Your task to perform on an android device: Is it going to rain tomorrow? Image 0: 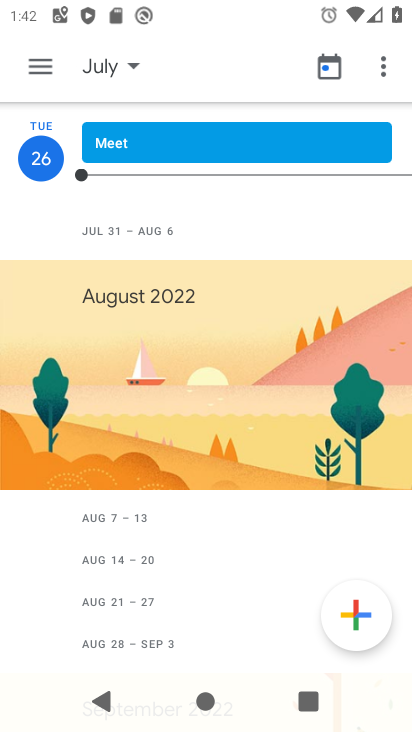
Step 0: press home button
Your task to perform on an android device: Is it going to rain tomorrow? Image 1: 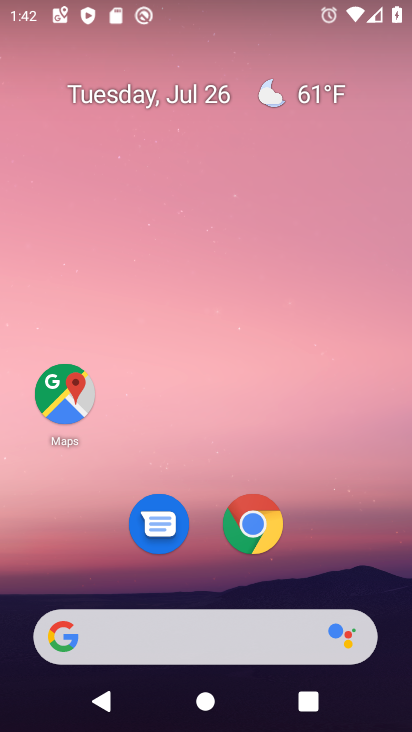
Step 1: click (145, 637)
Your task to perform on an android device: Is it going to rain tomorrow? Image 2: 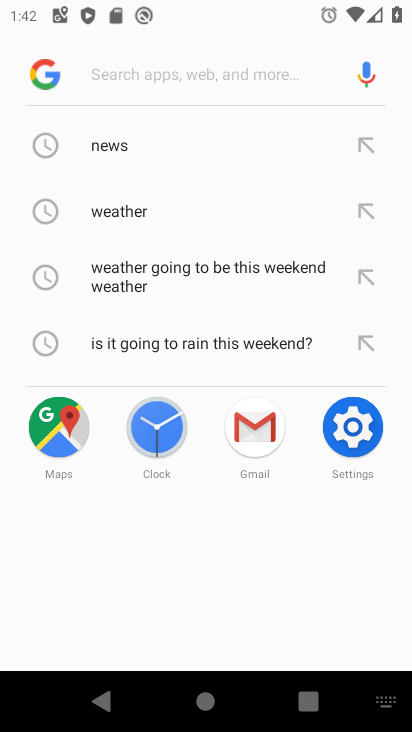
Step 2: type "Is it going to rain tomorrow"
Your task to perform on an android device: Is it going to rain tomorrow? Image 3: 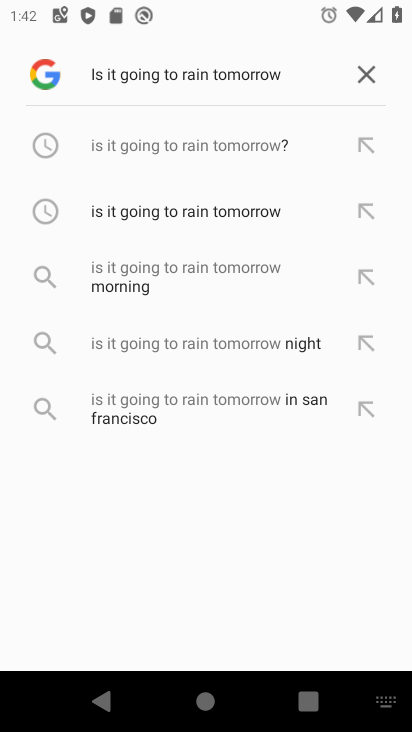
Step 3: click (184, 148)
Your task to perform on an android device: Is it going to rain tomorrow? Image 4: 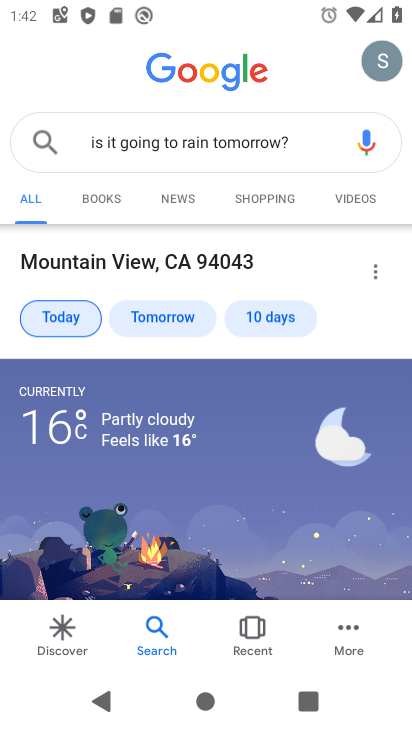
Step 4: click (163, 315)
Your task to perform on an android device: Is it going to rain tomorrow? Image 5: 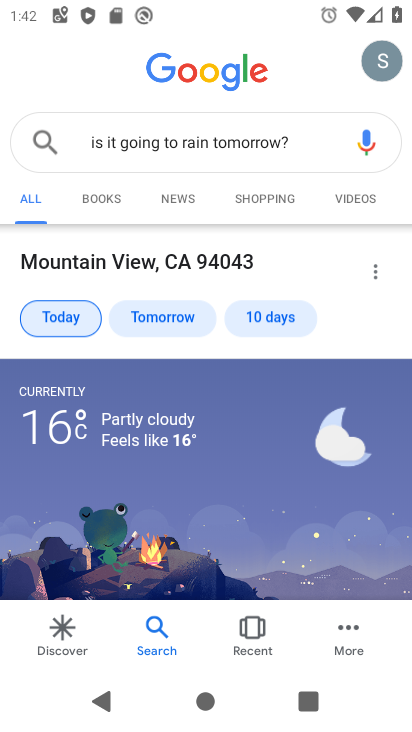
Step 5: click (176, 314)
Your task to perform on an android device: Is it going to rain tomorrow? Image 6: 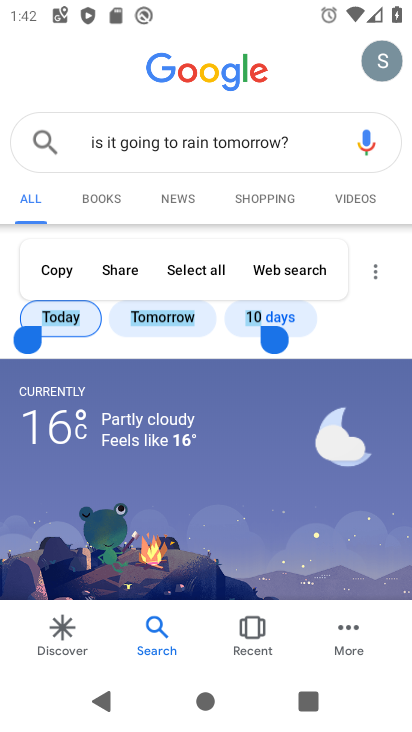
Step 6: drag from (234, 474) to (327, 305)
Your task to perform on an android device: Is it going to rain tomorrow? Image 7: 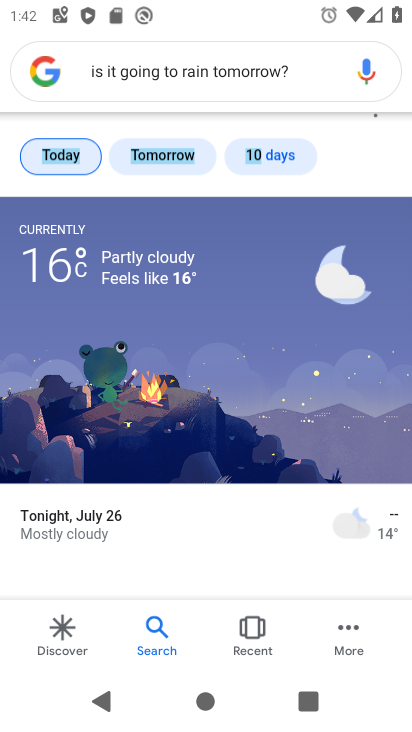
Step 7: click (146, 168)
Your task to perform on an android device: Is it going to rain tomorrow? Image 8: 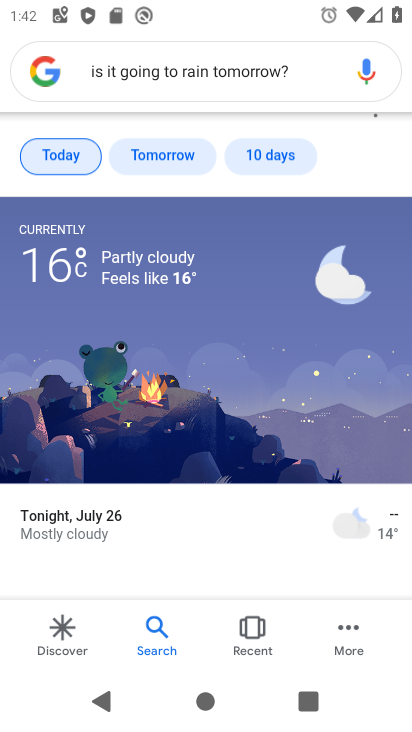
Step 8: click (167, 163)
Your task to perform on an android device: Is it going to rain tomorrow? Image 9: 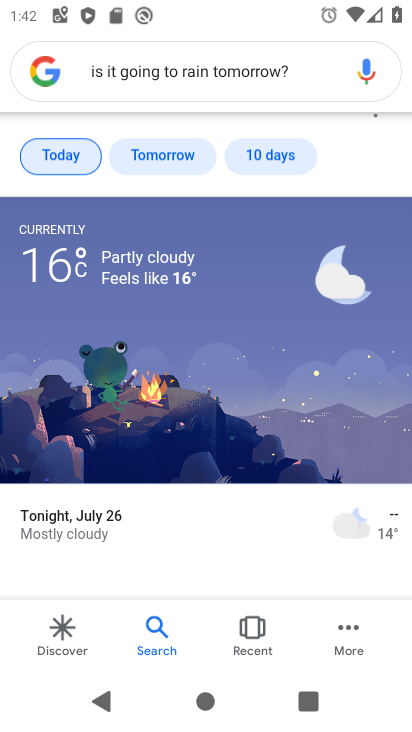
Step 9: click (173, 155)
Your task to perform on an android device: Is it going to rain tomorrow? Image 10: 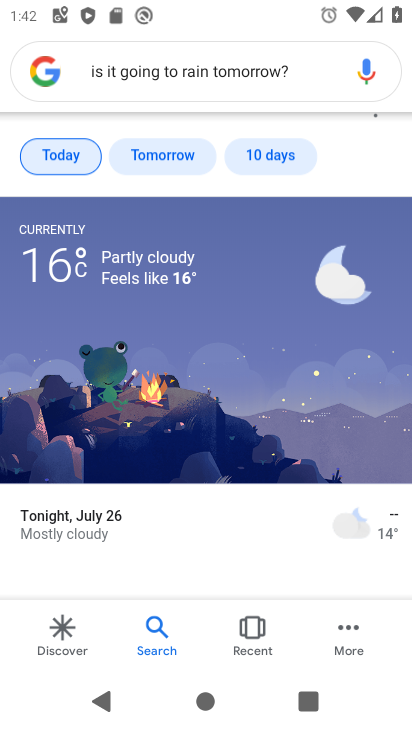
Step 10: click (170, 154)
Your task to perform on an android device: Is it going to rain tomorrow? Image 11: 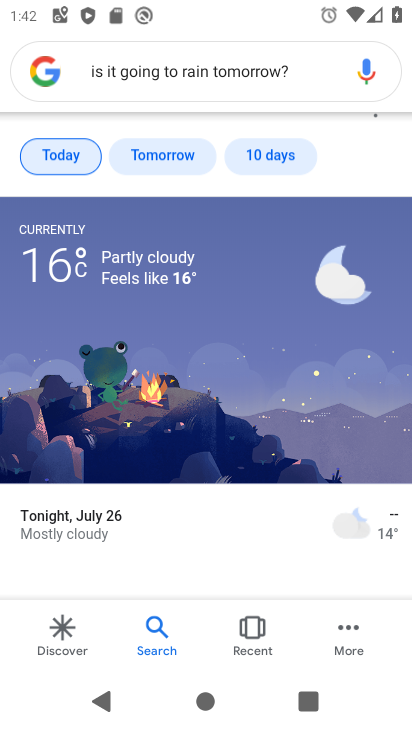
Step 11: click (168, 159)
Your task to perform on an android device: Is it going to rain tomorrow? Image 12: 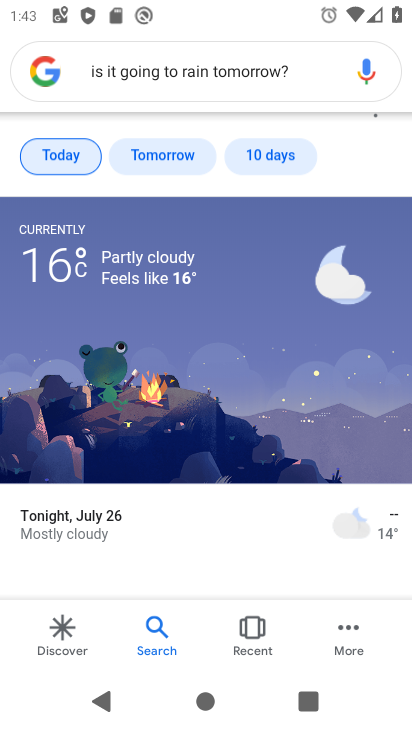
Step 12: task complete